Your task to perform on an android device: Open Chrome and go to settings Image 0: 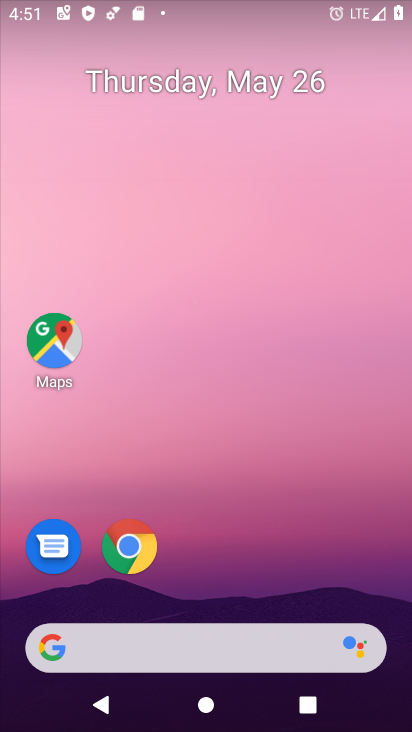
Step 0: click (142, 543)
Your task to perform on an android device: Open Chrome and go to settings Image 1: 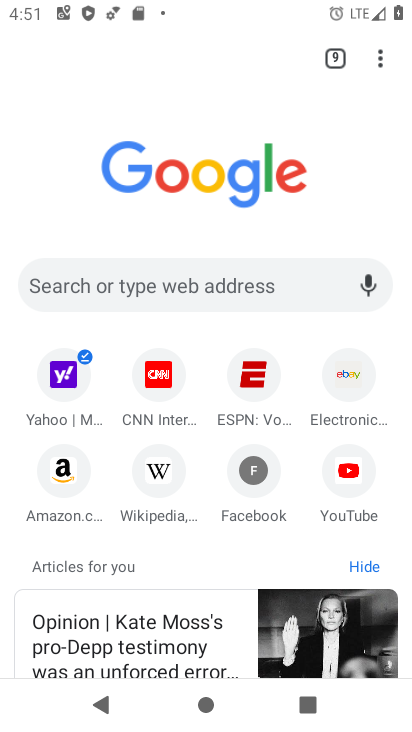
Step 1: task complete